Your task to perform on an android device: visit the assistant section in the google photos Image 0: 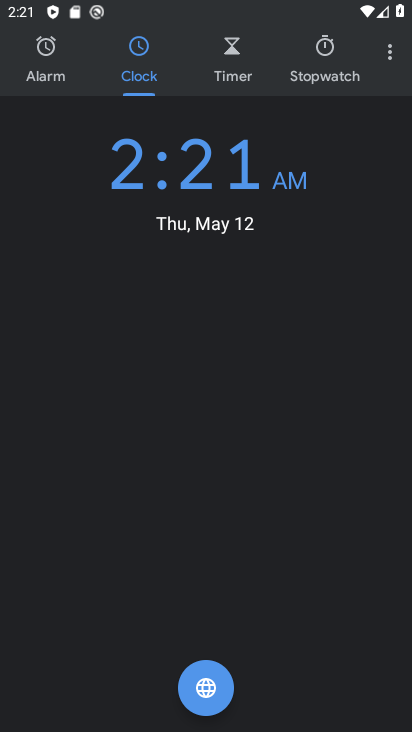
Step 0: press home button
Your task to perform on an android device: visit the assistant section in the google photos Image 1: 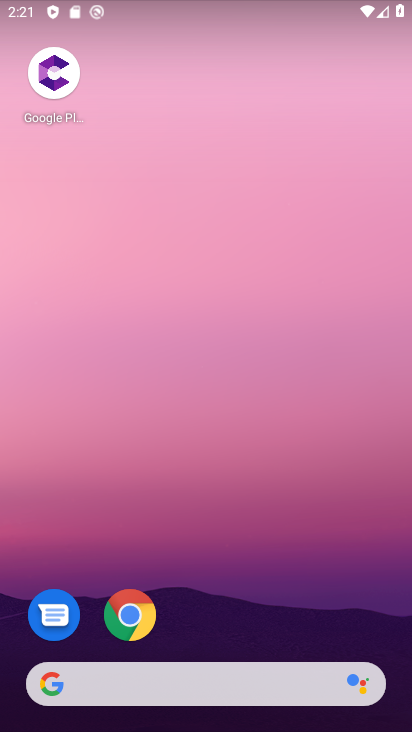
Step 1: drag from (43, 611) to (335, 77)
Your task to perform on an android device: visit the assistant section in the google photos Image 2: 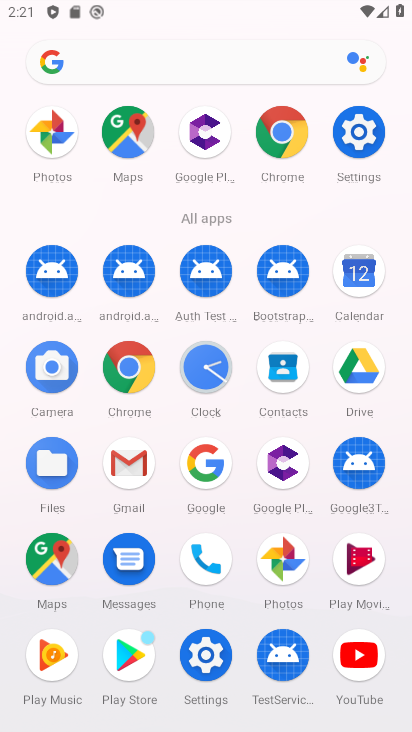
Step 2: click (279, 554)
Your task to perform on an android device: visit the assistant section in the google photos Image 3: 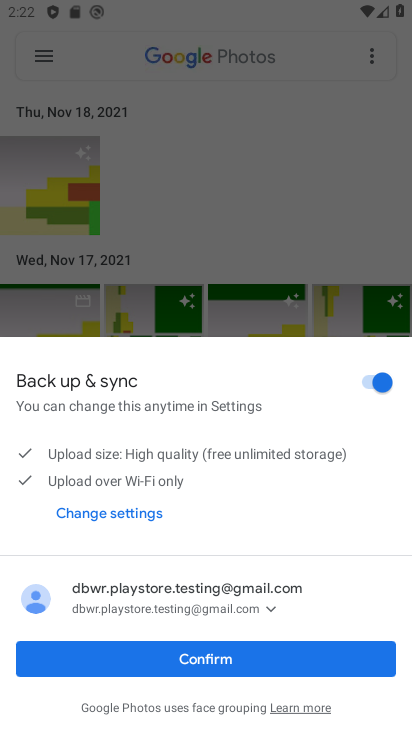
Step 3: click (90, 654)
Your task to perform on an android device: visit the assistant section in the google photos Image 4: 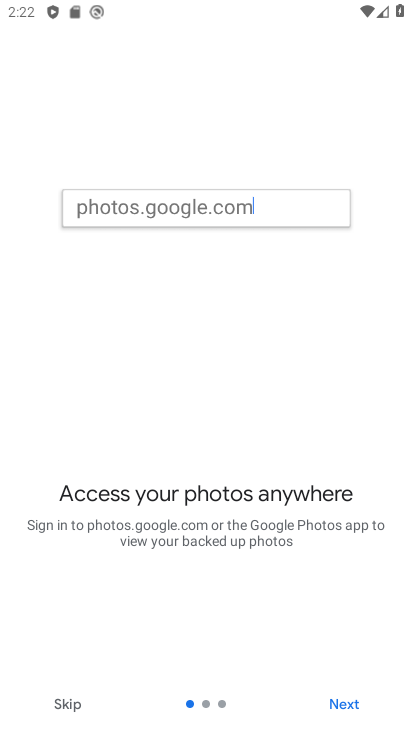
Step 4: click (335, 706)
Your task to perform on an android device: visit the assistant section in the google photos Image 5: 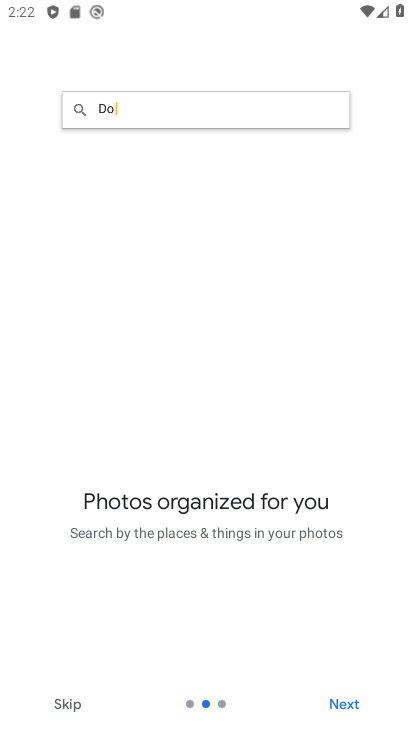
Step 5: click (335, 704)
Your task to perform on an android device: visit the assistant section in the google photos Image 6: 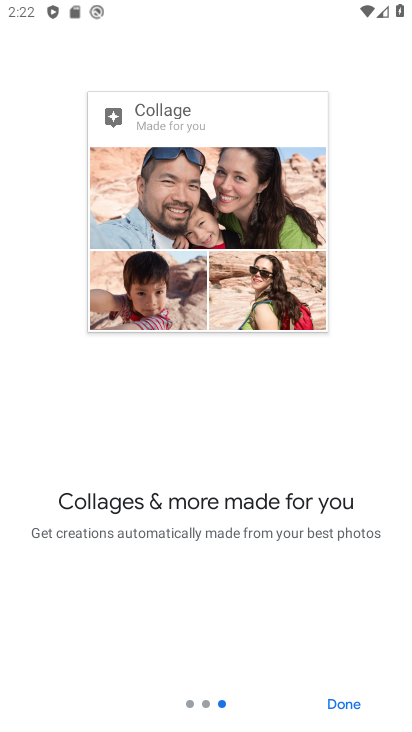
Step 6: click (334, 699)
Your task to perform on an android device: visit the assistant section in the google photos Image 7: 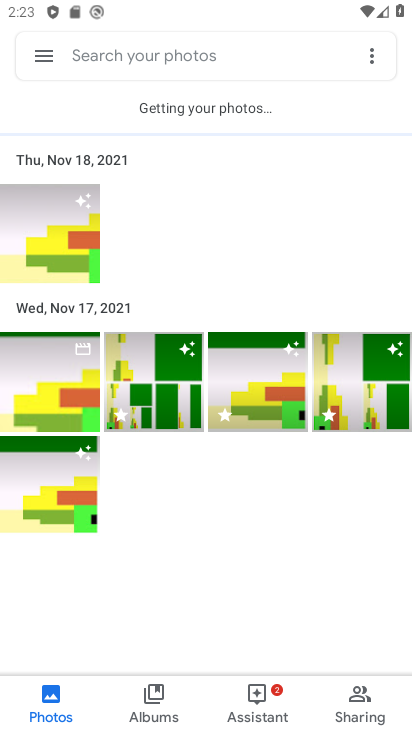
Step 7: click (261, 696)
Your task to perform on an android device: visit the assistant section in the google photos Image 8: 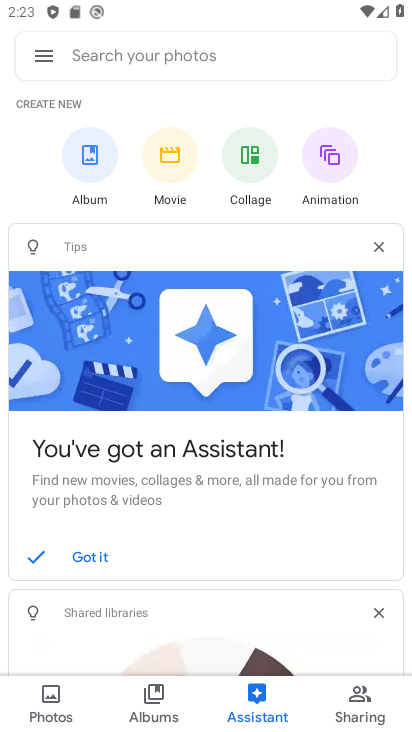
Step 8: task complete